Your task to perform on an android device: open app "PUBG MOBILE" (install if not already installed) Image 0: 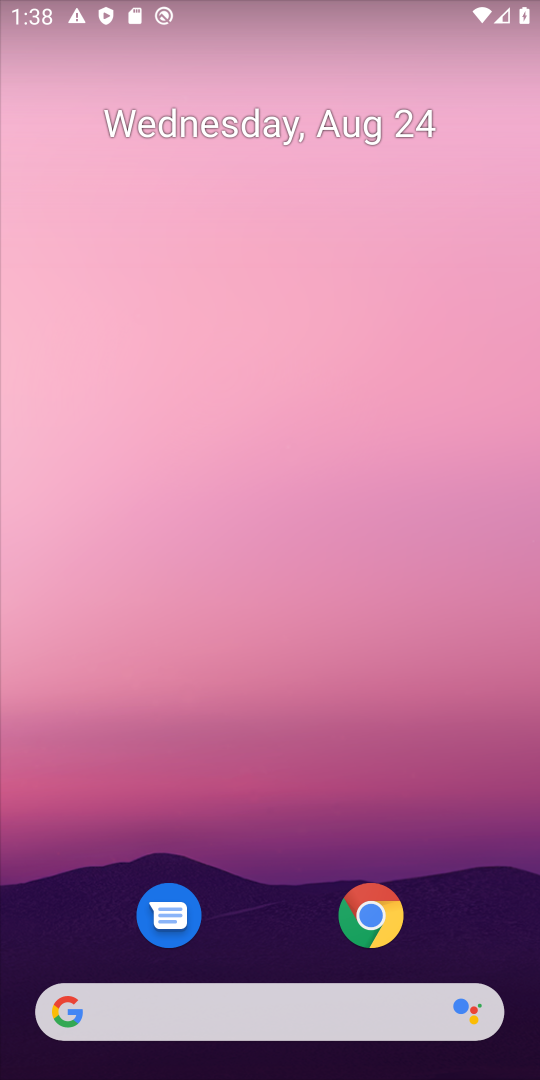
Step 0: drag from (311, 856) to (309, 301)
Your task to perform on an android device: open app "PUBG MOBILE" (install if not already installed) Image 1: 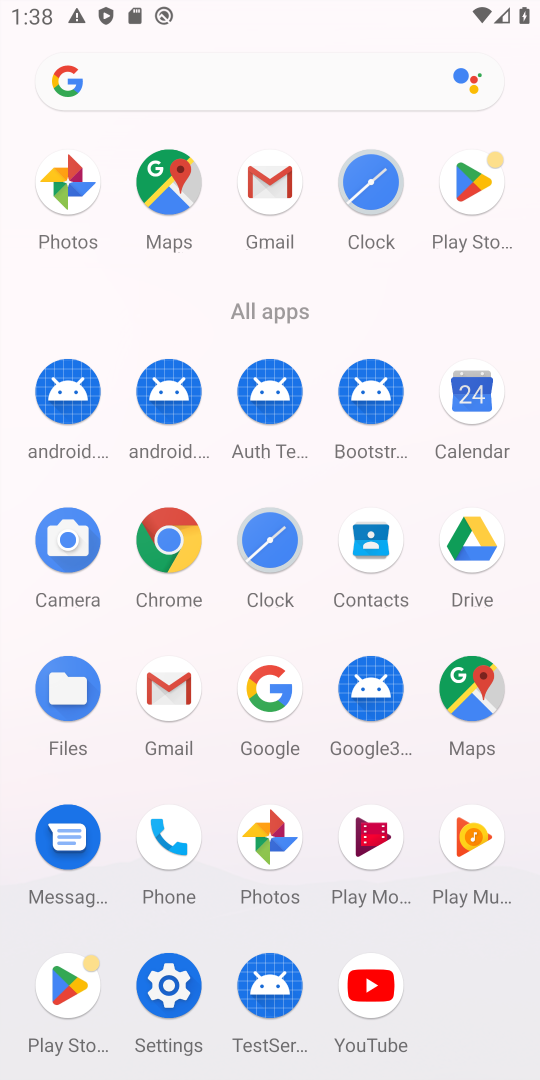
Step 1: click (451, 177)
Your task to perform on an android device: open app "PUBG MOBILE" (install if not already installed) Image 2: 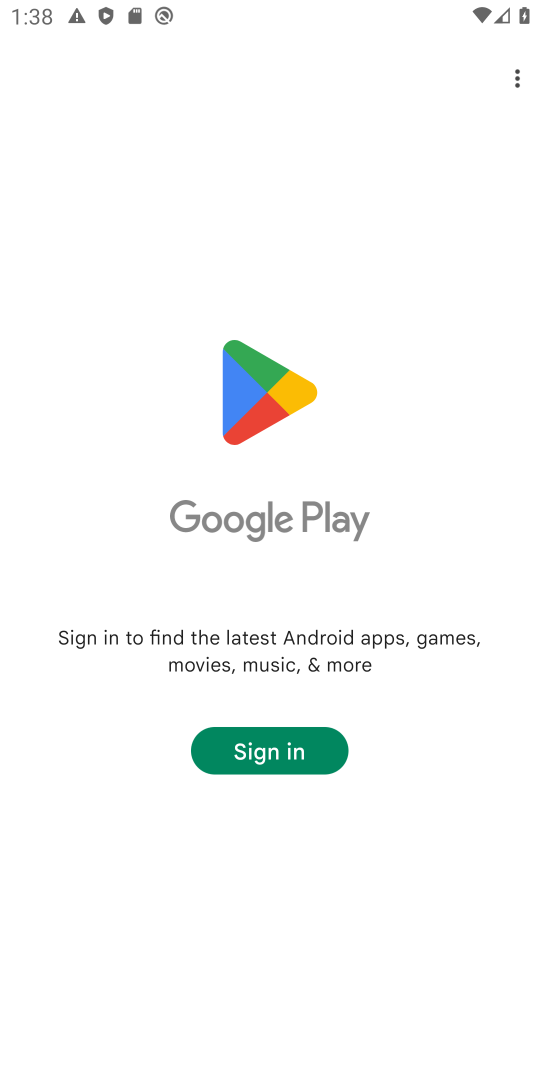
Step 2: task complete